Your task to perform on an android device: Open wifi settings Image 0: 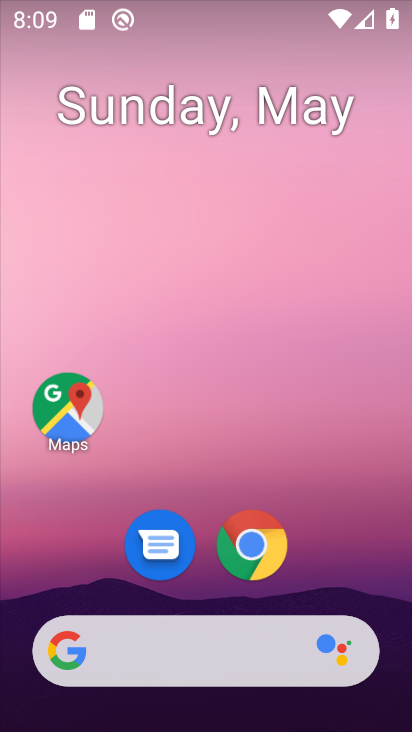
Step 0: drag from (47, 639) to (190, 122)
Your task to perform on an android device: Open wifi settings Image 1: 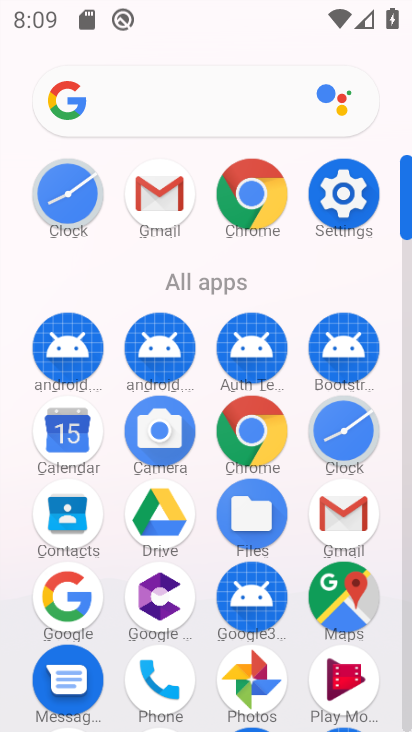
Step 1: drag from (145, 620) to (213, 278)
Your task to perform on an android device: Open wifi settings Image 2: 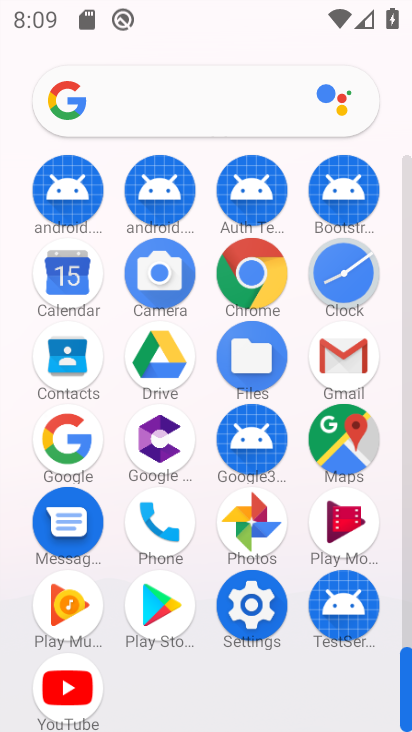
Step 2: click (231, 588)
Your task to perform on an android device: Open wifi settings Image 3: 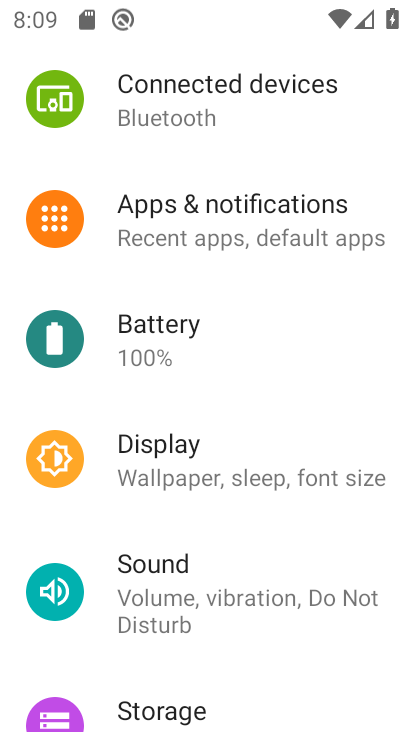
Step 3: drag from (194, 201) to (169, 589)
Your task to perform on an android device: Open wifi settings Image 4: 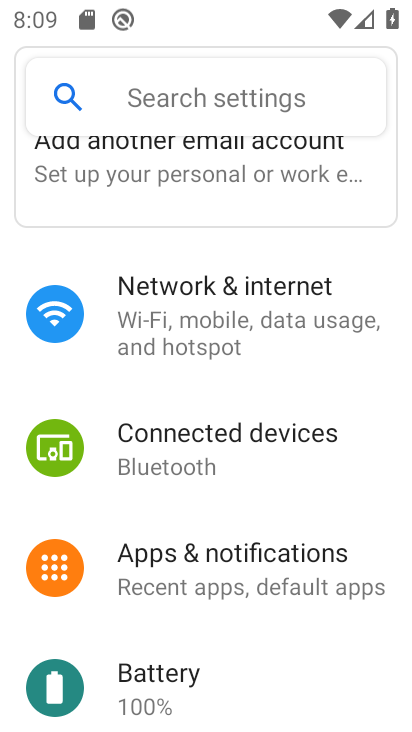
Step 4: click (187, 352)
Your task to perform on an android device: Open wifi settings Image 5: 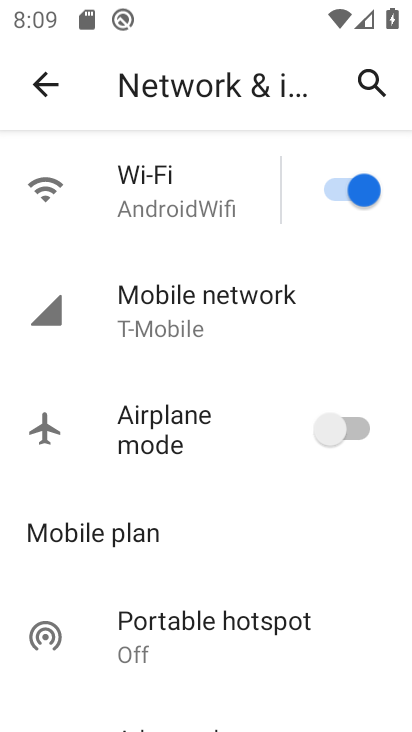
Step 5: click (206, 227)
Your task to perform on an android device: Open wifi settings Image 6: 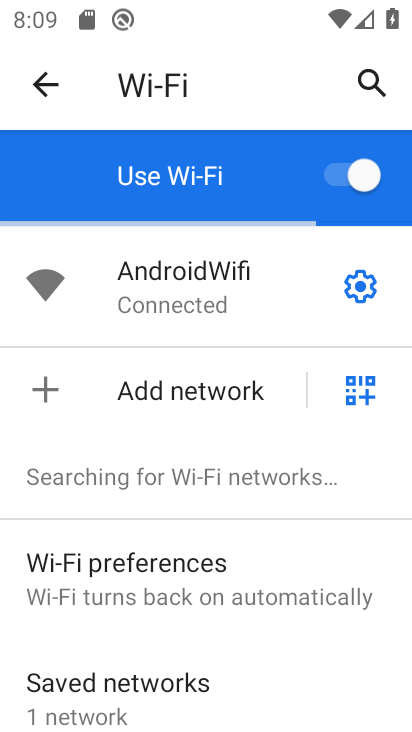
Step 6: task complete